Your task to perform on an android device: turn on wifi Image 0: 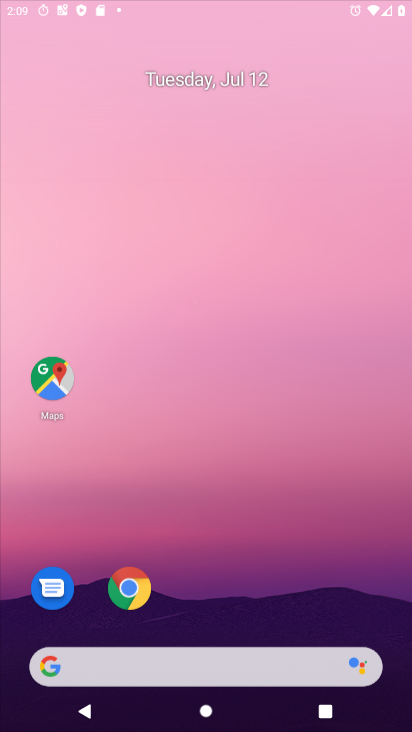
Step 0: drag from (191, 245) to (259, 26)
Your task to perform on an android device: turn on wifi Image 1: 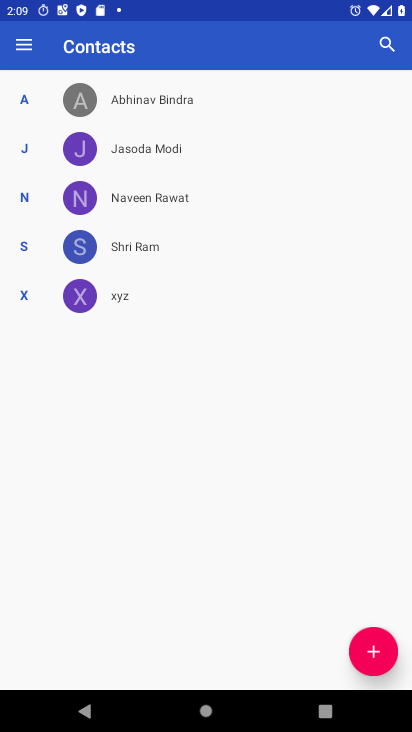
Step 1: press home button
Your task to perform on an android device: turn on wifi Image 2: 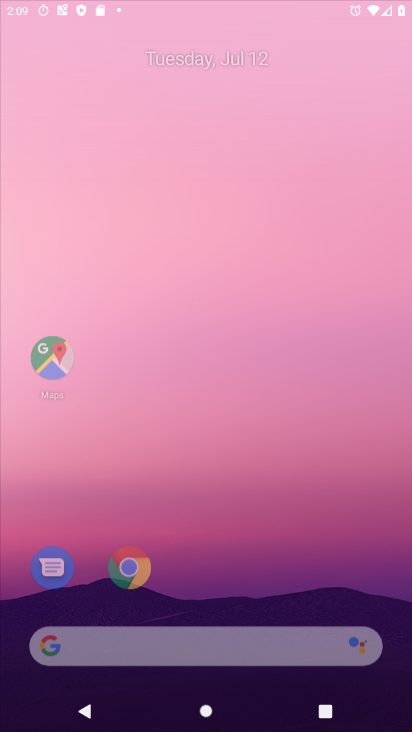
Step 2: drag from (172, 543) to (252, 30)
Your task to perform on an android device: turn on wifi Image 3: 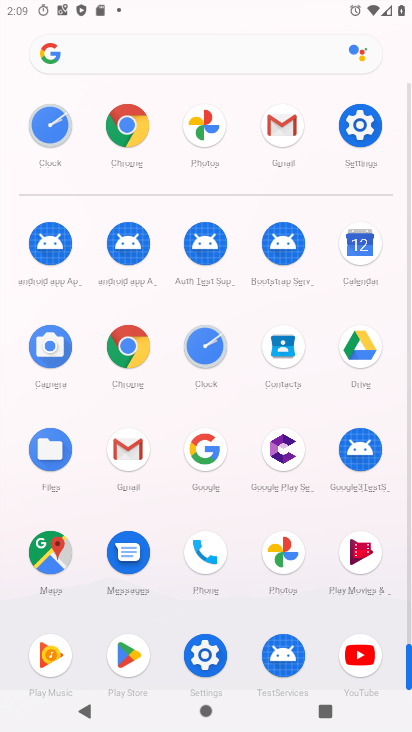
Step 3: click (203, 654)
Your task to perform on an android device: turn on wifi Image 4: 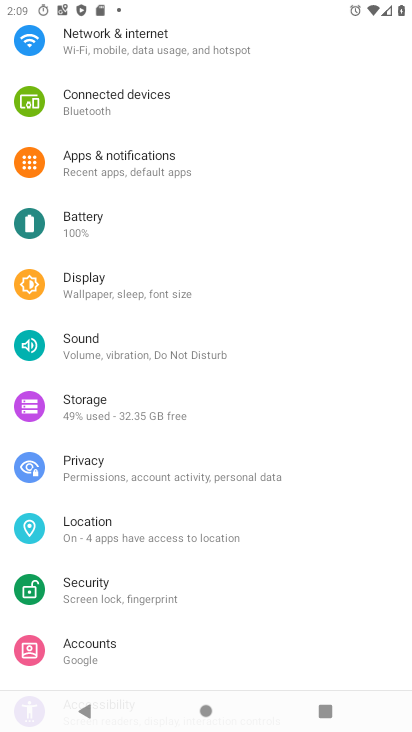
Step 4: drag from (184, 109) to (203, 723)
Your task to perform on an android device: turn on wifi Image 5: 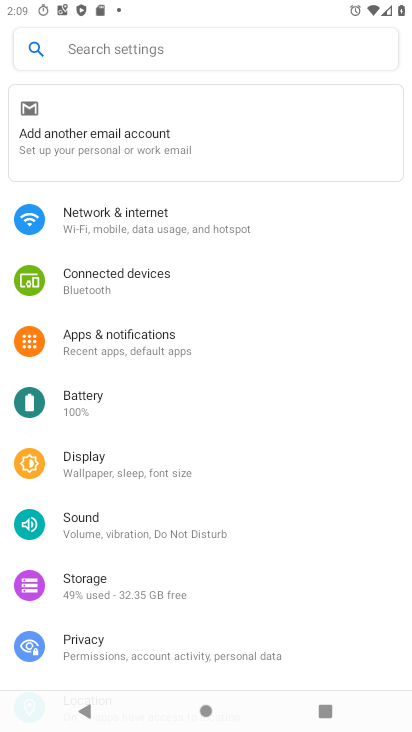
Step 5: click (178, 212)
Your task to perform on an android device: turn on wifi Image 6: 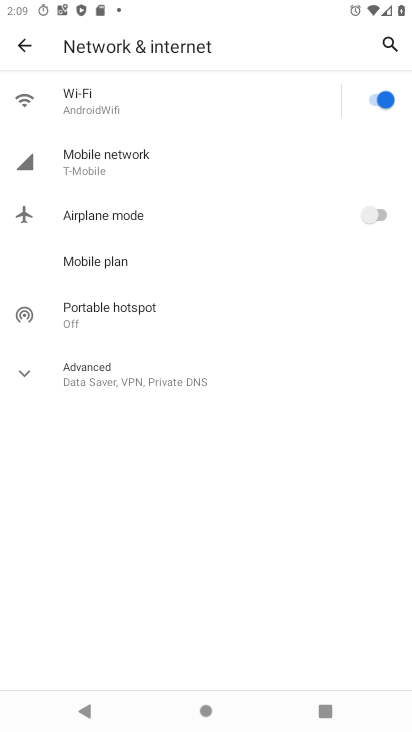
Step 6: click (181, 99)
Your task to perform on an android device: turn on wifi Image 7: 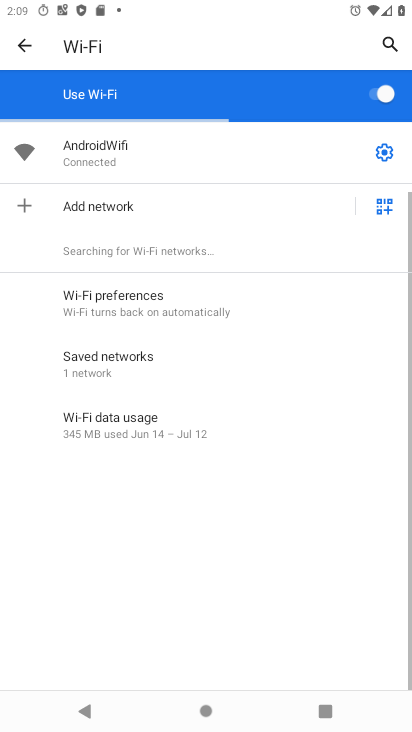
Step 7: task complete